Your task to perform on an android device: Go to battery settings Image 0: 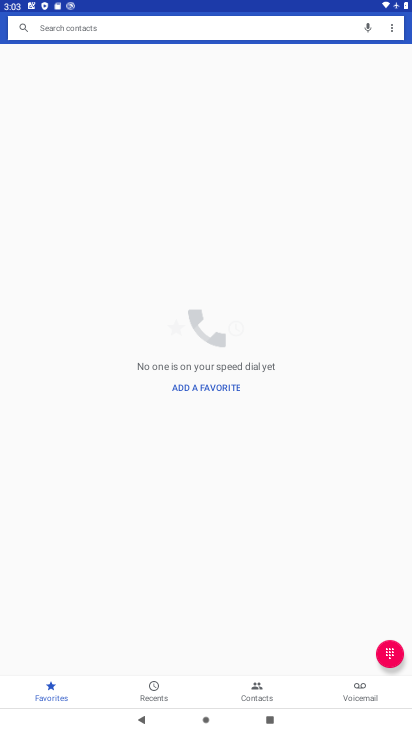
Step 0: press home button
Your task to perform on an android device: Go to battery settings Image 1: 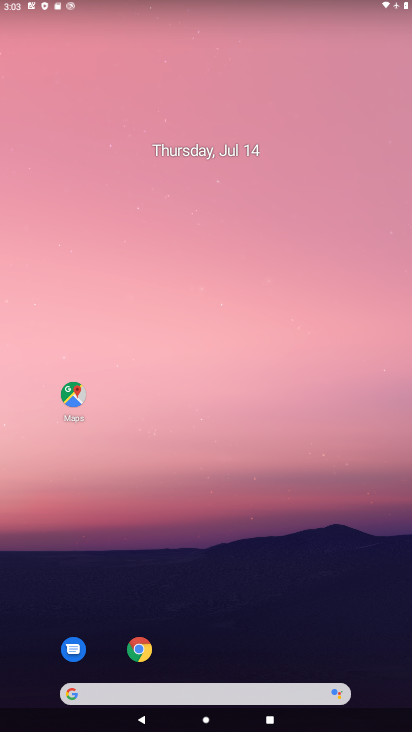
Step 1: drag from (268, 666) to (269, 2)
Your task to perform on an android device: Go to battery settings Image 2: 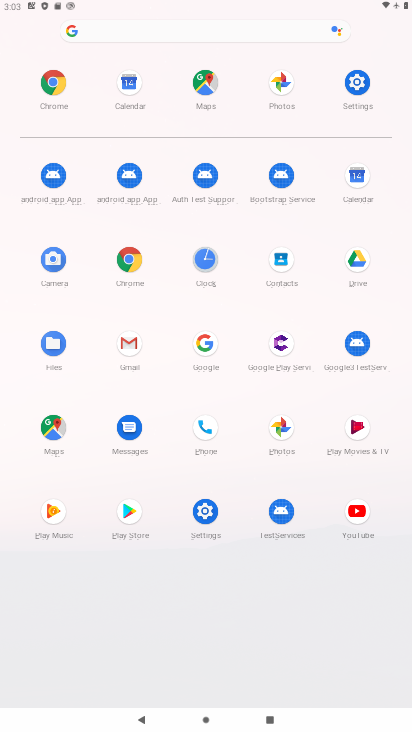
Step 2: click (208, 530)
Your task to perform on an android device: Go to battery settings Image 3: 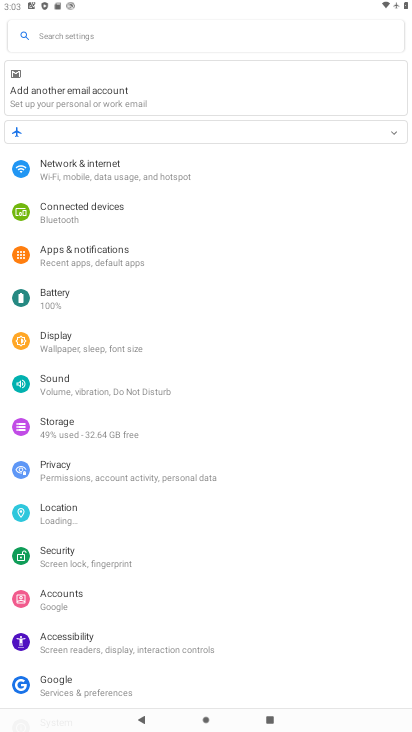
Step 3: click (78, 293)
Your task to perform on an android device: Go to battery settings Image 4: 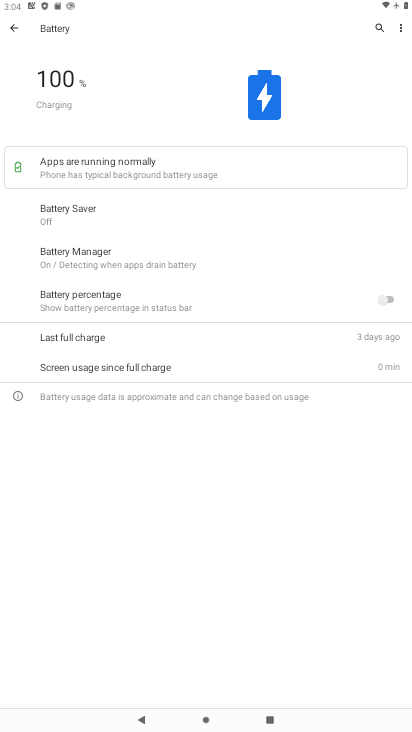
Step 4: task complete